Your task to perform on an android device: Open Yahoo.com Image 0: 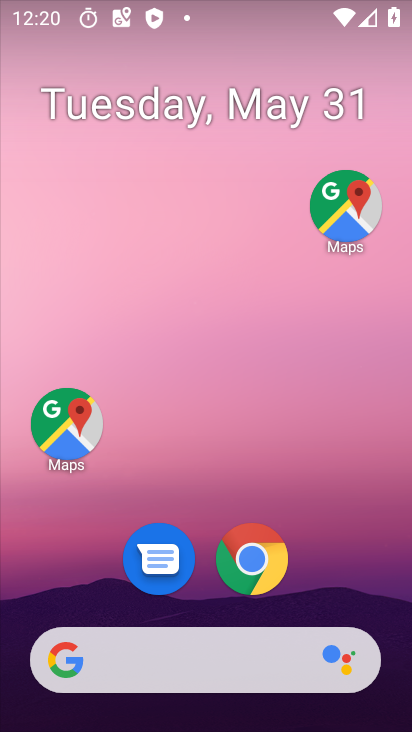
Step 0: click (252, 547)
Your task to perform on an android device: Open Yahoo.com Image 1: 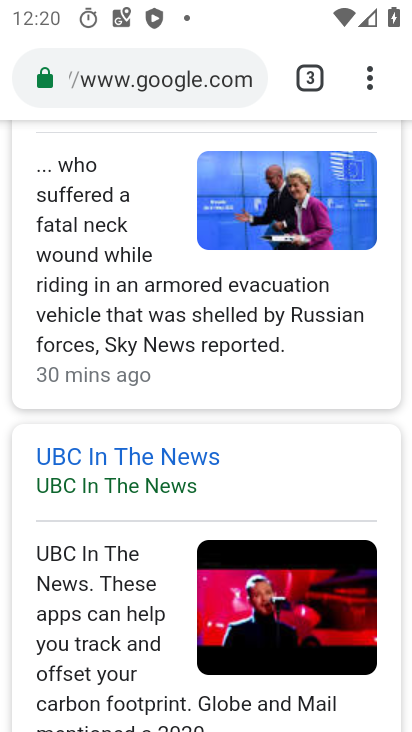
Step 1: click (202, 73)
Your task to perform on an android device: Open Yahoo.com Image 2: 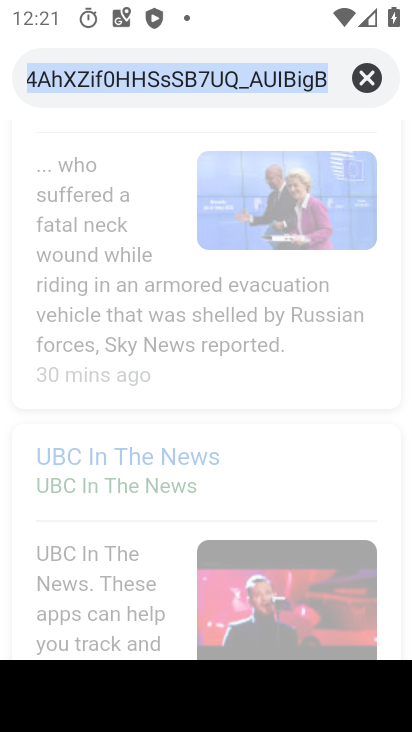
Step 2: type "yahoo.com"
Your task to perform on an android device: Open Yahoo.com Image 3: 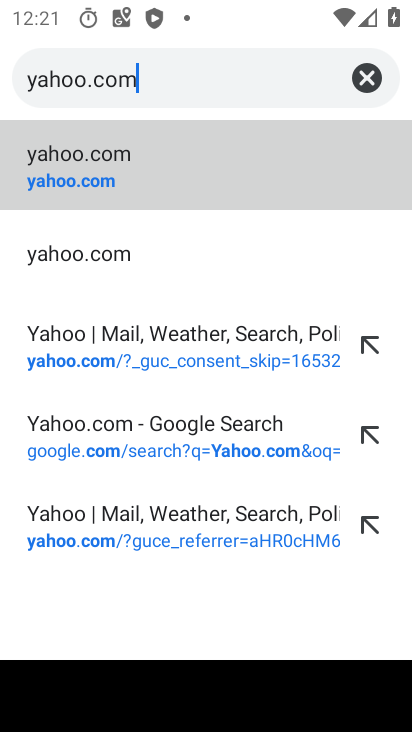
Step 3: click (62, 187)
Your task to perform on an android device: Open Yahoo.com Image 4: 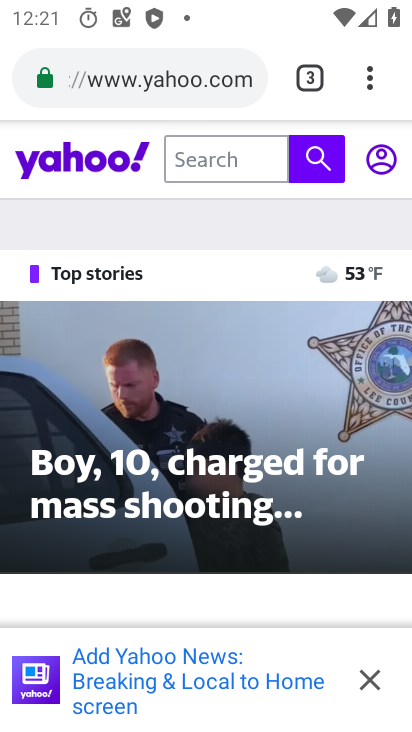
Step 4: task complete